Your task to perform on an android device: Go to ESPN.com Image 0: 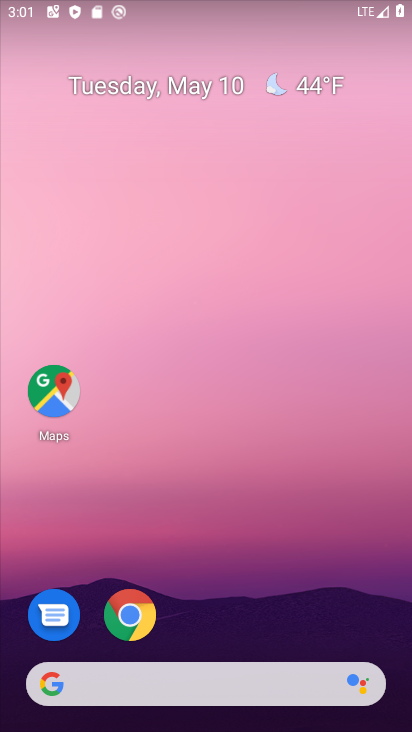
Step 0: click (133, 632)
Your task to perform on an android device: Go to ESPN.com Image 1: 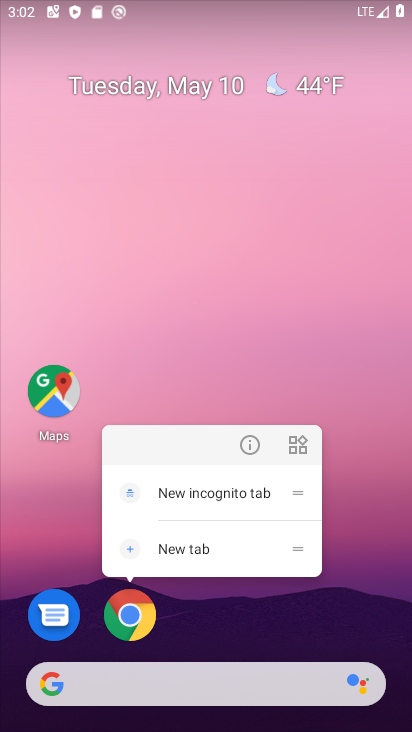
Step 1: click (110, 614)
Your task to perform on an android device: Go to ESPN.com Image 2: 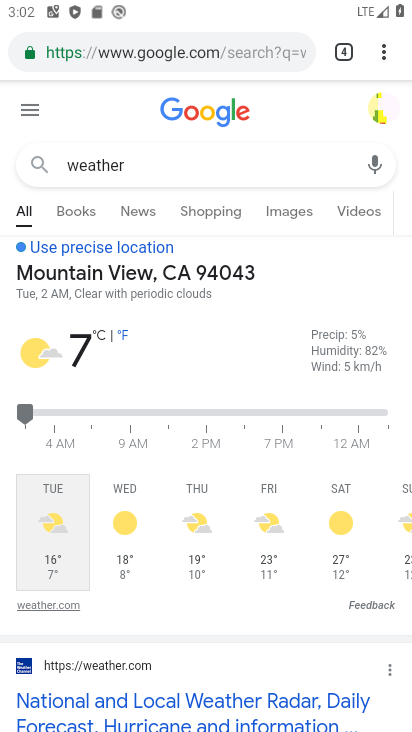
Step 2: click (247, 47)
Your task to perform on an android device: Go to ESPN.com Image 3: 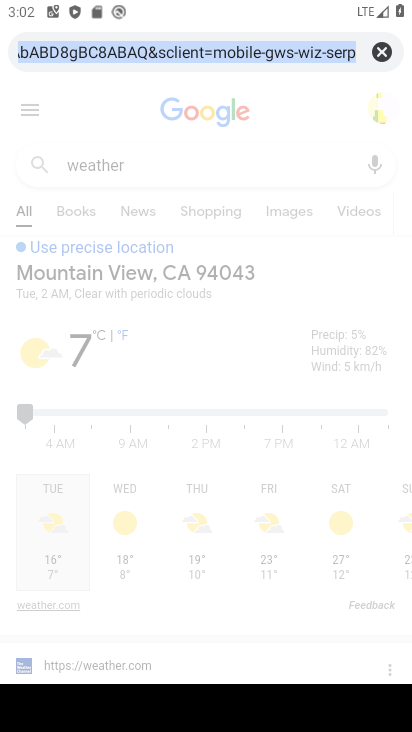
Step 3: click (247, 52)
Your task to perform on an android device: Go to ESPN.com Image 4: 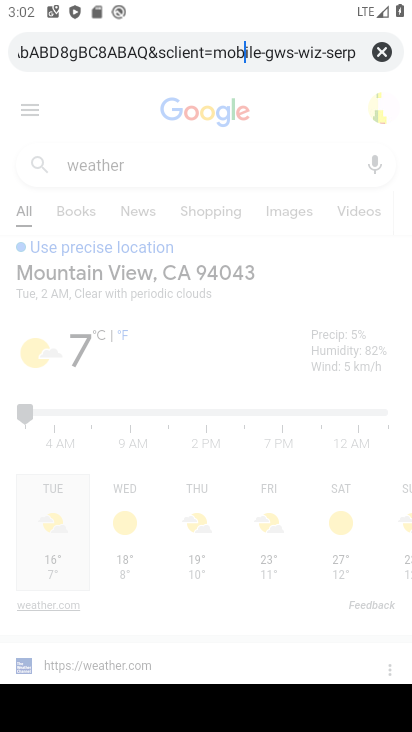
Step 4: click (386, 55)
Your task to perform on an android device: Go to ESPN.com Image 5: 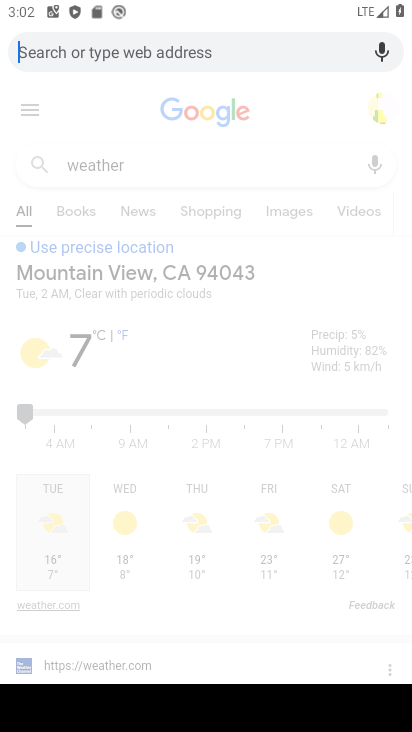
Step 5: type " ESPN.com"
Your task to perform on an android device: Go to ESPN.com Image 6: 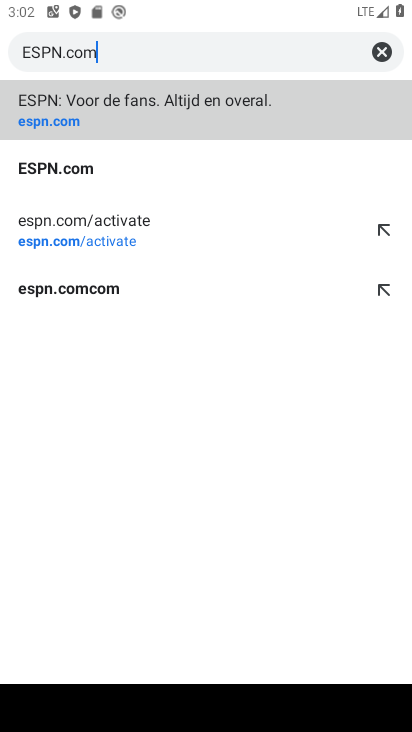
Step 6: click (277, 121)
Your task to perform on an android device: Go to ESPN.com Image 7: 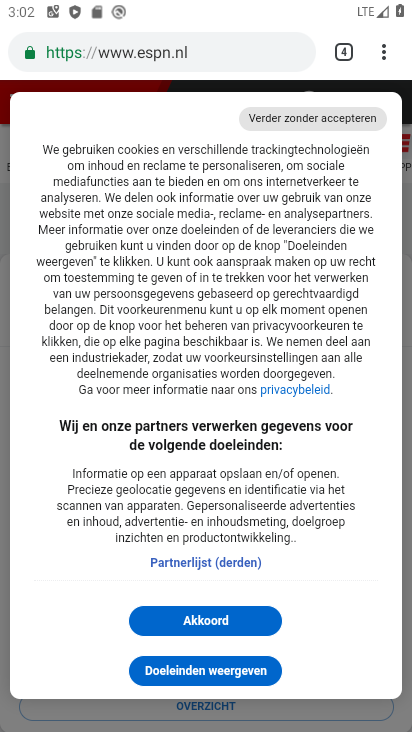
Step 7: task complete